Your task to perform on an android device: delete a single message in the gmail app Image 0: 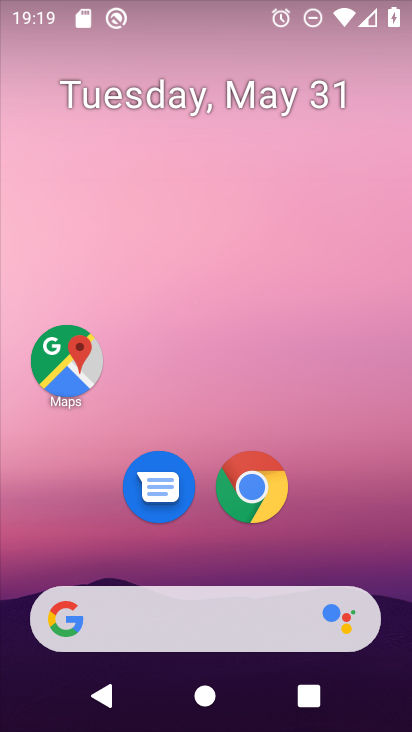
Step 0: drag from (323, 538) to (134, 12)
Your task to perform on an android device: delete a single message in the gmail app Image 1: 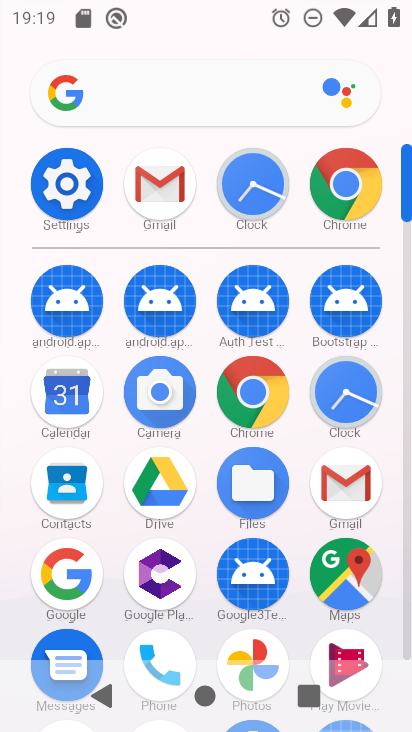
Step 1: click (161, 181)
Your task to perform on an android device: delete a single message in the gmail app Image 2: 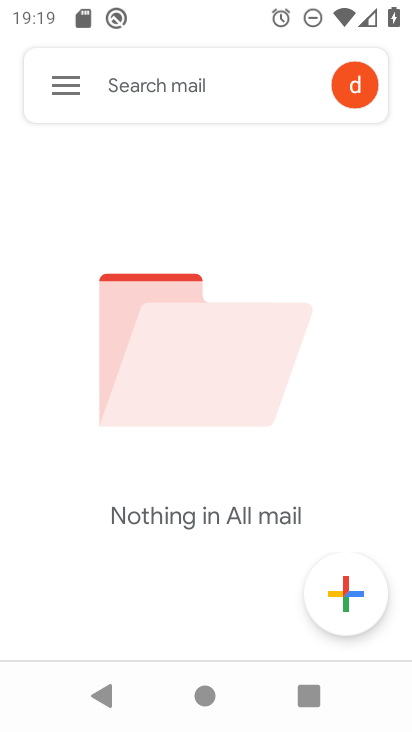
Step 2: task complete